Your task to perform on an android device: Open the stopwatch Image 0: 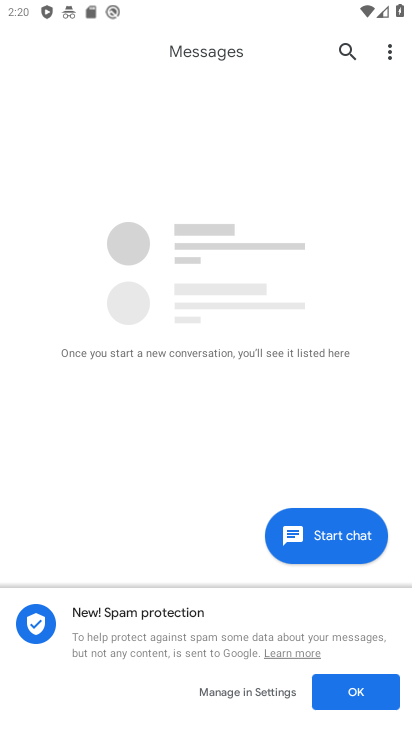
Step 0: press home button
Your task to perform on an android device: Open the stopwatch Image 1: 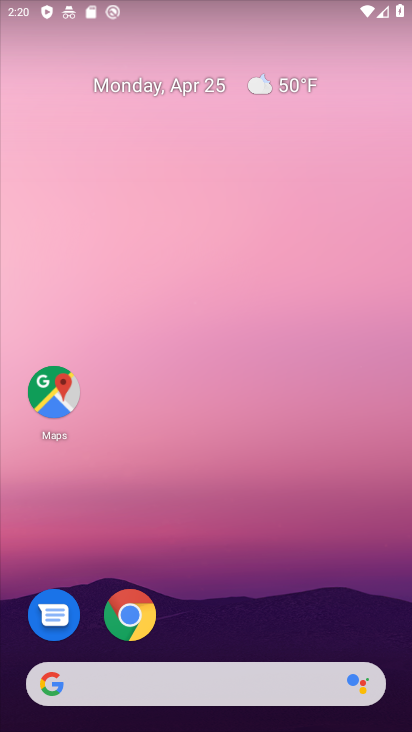
Step 1: drag from (201, 724) to (226, 223)
Your task to perform on an android device: Open the stopwatch Image 2: 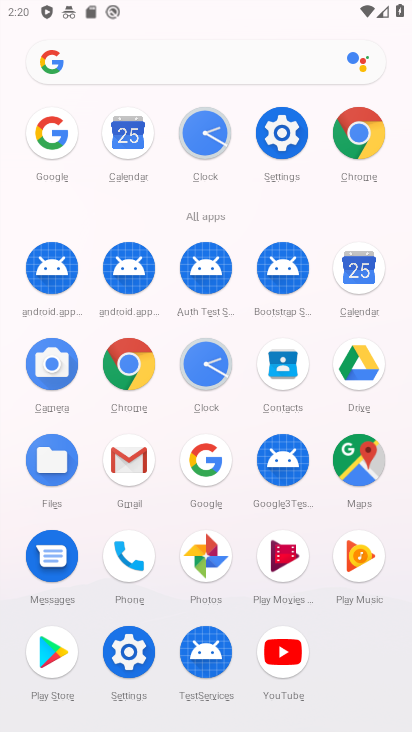
Step 2: click (205, 364)
Your task to perform on an android device: Open the stopwatch Image 3: 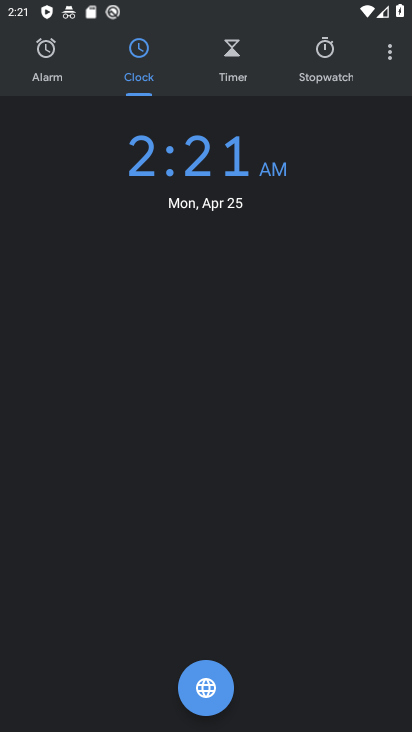
Step 3: click (327, 60)
Your task to perform on an android device: Open the stopwatch Image 4: 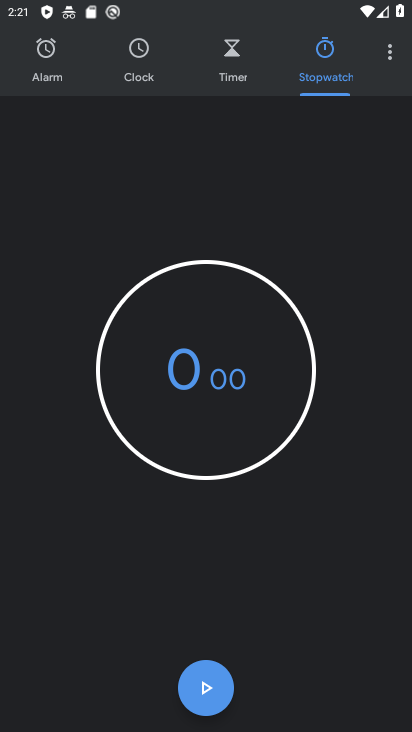
Step 4: task complete